Your task to perform on an android device: turn on showing notifications on the lock screen Image 0: 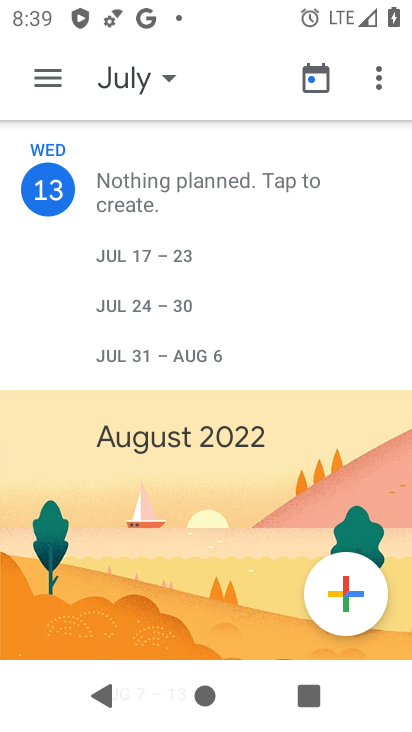
Step 0: press home button
Your task to perform on an android device: turn on showing notifications on the lock screen Image 1: 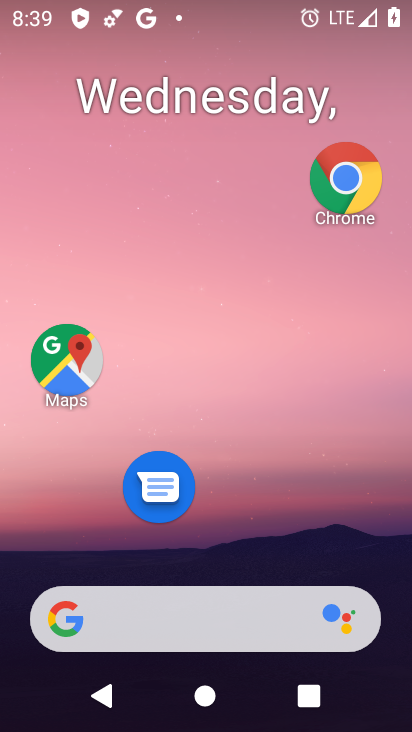
Step 1: drag from (243, 667) to (264, 248)
Your task to perform on an android device: turn on showing notifications on the lock screen Image 2: 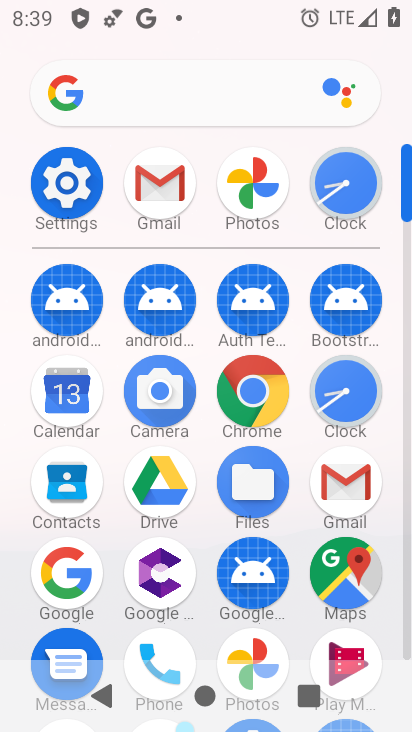
Step 2: click (68, 199)
Your task to perform on an android device: turn on showing notifications on the lock screen Image 3: 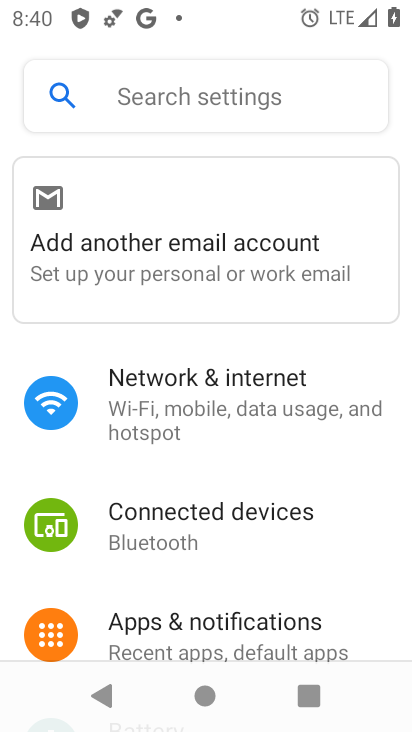
Step 3: drag from (238, 615) to (286, 231)
Your task to perform on an android device: turn on showing notifications on the lock screen Image 4: 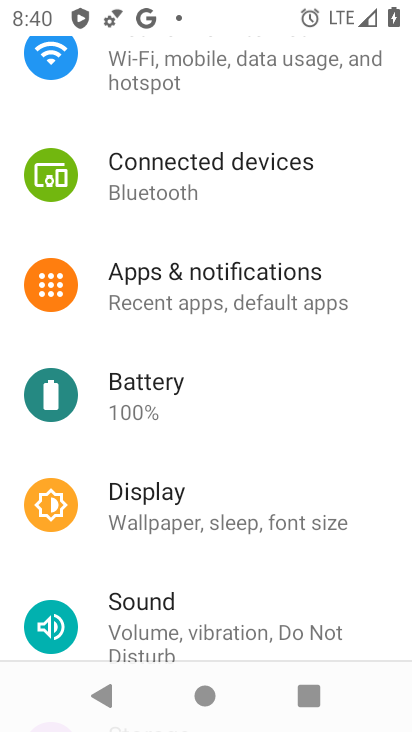
Step 4: click (250, 288)
Your task to perform on an android device: turn on showing notifications on the lock screen Image 5: 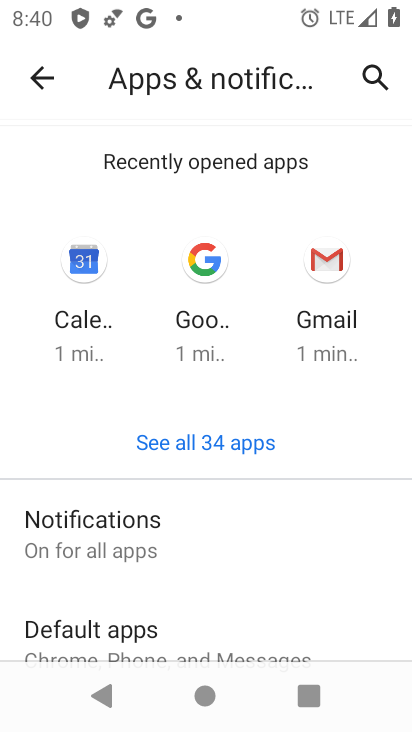
Step 5: click (166, 538)
Your task to perform on an android device: turn on showing notifications on the lock screen Image 6: 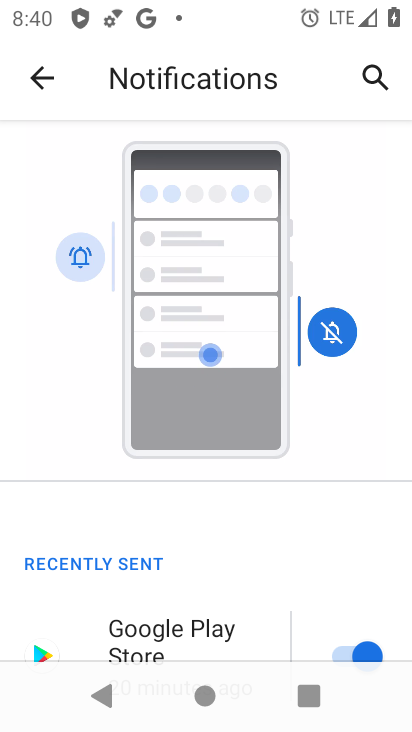
Step 6: drag from (166, 536) to (227, 200)
Your task to perform on an android device: turn on showing notifications on the lock screen Image 7: 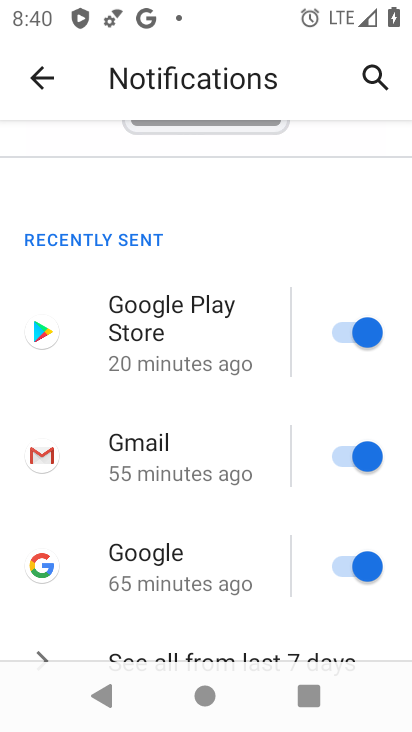
Step 7: drag from (184, 585) to (251, 105)
Your task to perform on an android device: turn on showing notifications on the lock screen Image 8: 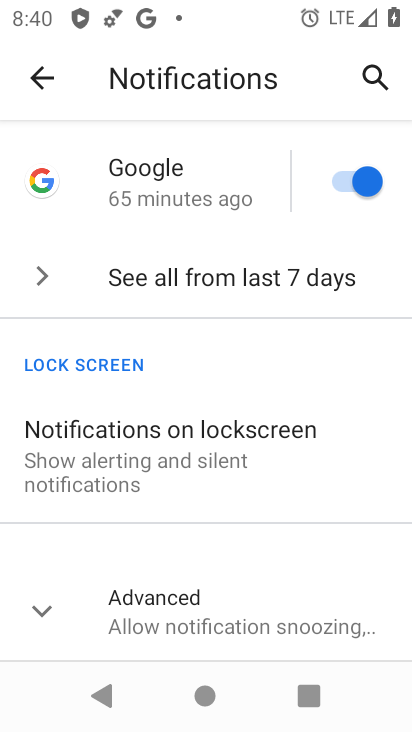
Step 8: click (257, 449)
Your task to perform on an android device: turn on showing notifications on the lock screen Image 9: 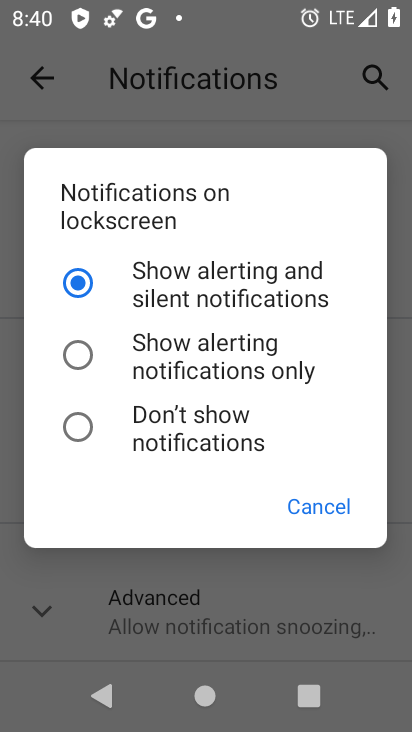
Step 9: task complete